Your task to perform on an android device: Open sound settings Image 0: 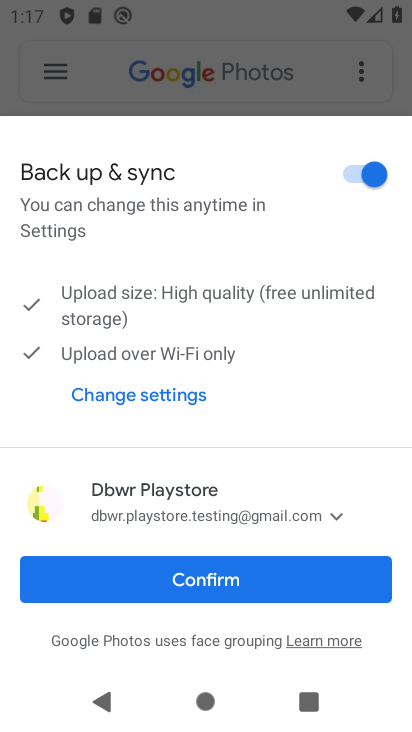
Step 0: click (369, 586)
Your task to perform on an android device: Open sound settings Image 1: 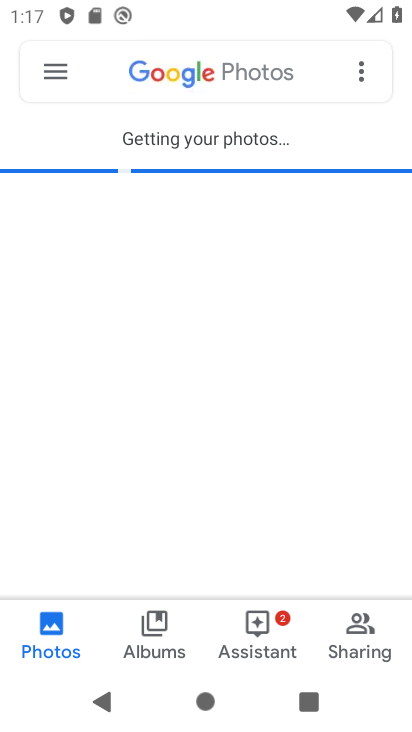
Step 1: press home button
Your task to perform on an android device: Open sound settings Image 2: 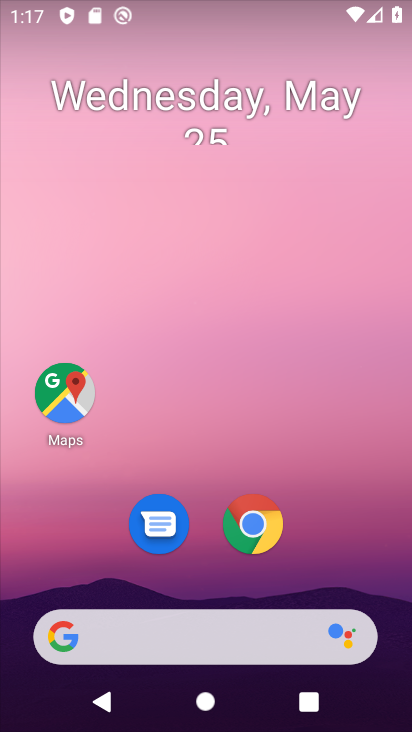
Step 2: drag from (239, 453) to (272, 26)
Your task to perform on an android device: Open sound settings Image 3: 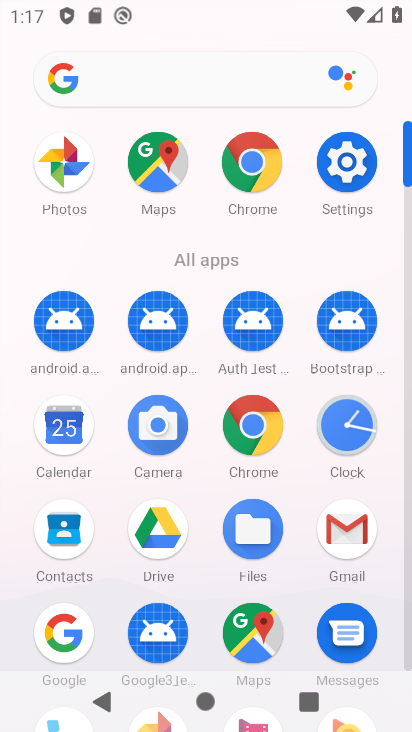
Step 3: click (343, 164)
Your task to perform on an android device: Open sound settings Image 4: 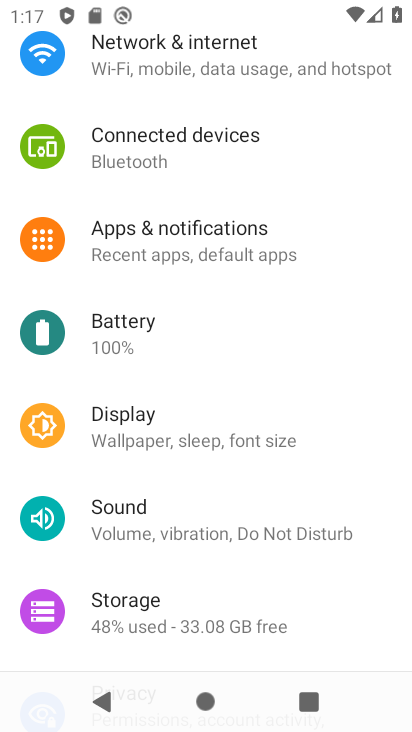
Step 4: click (237, 520)
Your task to perform on an android device: Open sound settings Image 5: 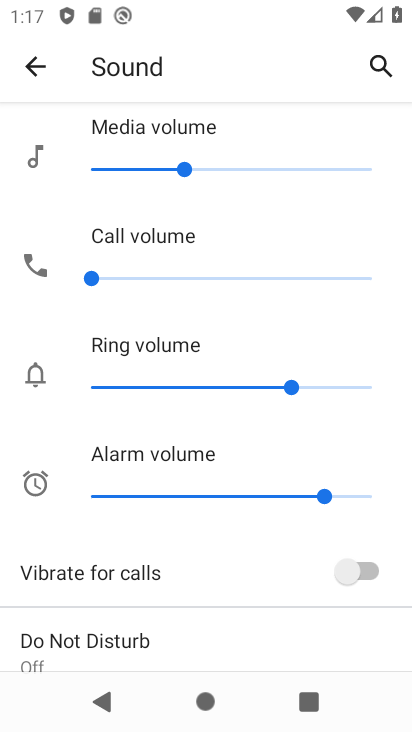
Step 5: task complete